Your task to perform on an android device: Open sound settings Image 0: 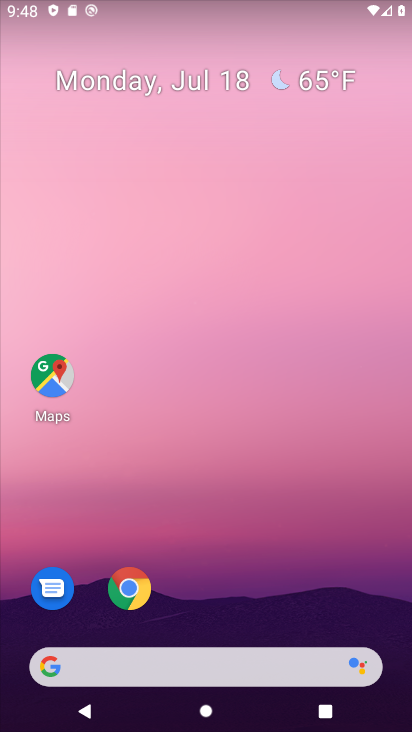
Step 0: press home button
Your task to perform on an android device: Open sound settings Image 1: 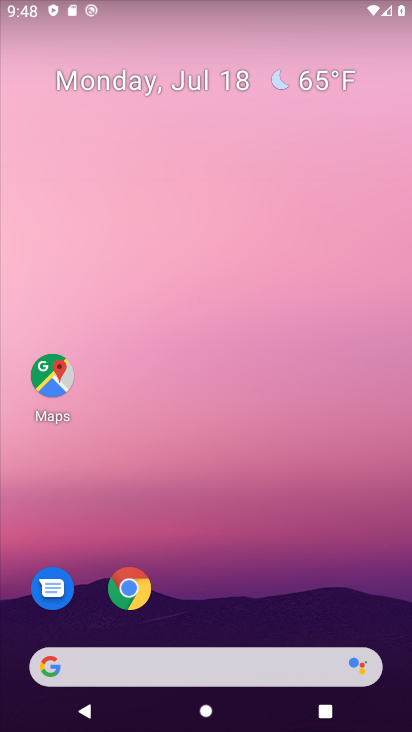
Step 1: drag from (252, 586) to (404, 69)
Your task to perform on an android device: Open sound settings Image 2: 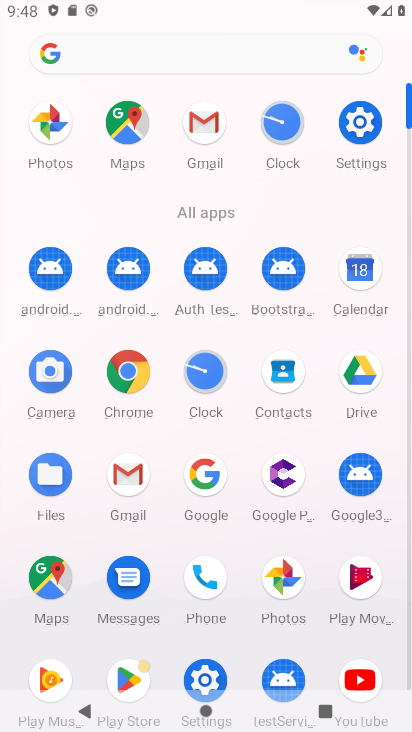
Step 2: click (360, 138)
Your task to perform on an android device: Open sound settings Image 3: 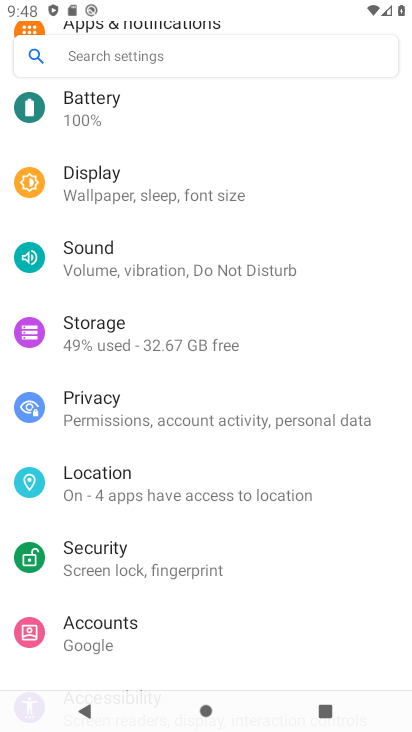
Step 3: click (78, 266)
Your task to perform on an android device: Open sound settings Image 4: 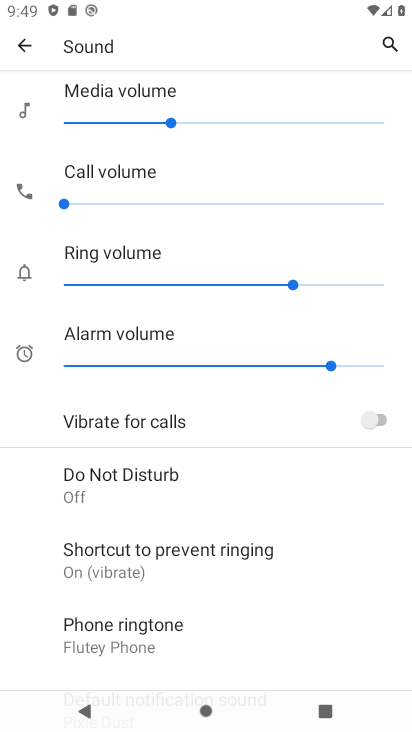
Step 4: task complete